Your task to perform on an android device: turn off wifi Image 0: 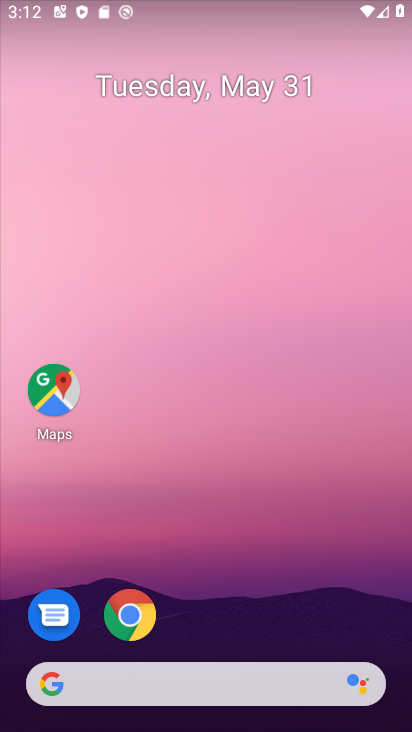
Step 0: drag from (255, 672) to (130, 180)
Your task to perform on an android device: turn off wifi Image 1: 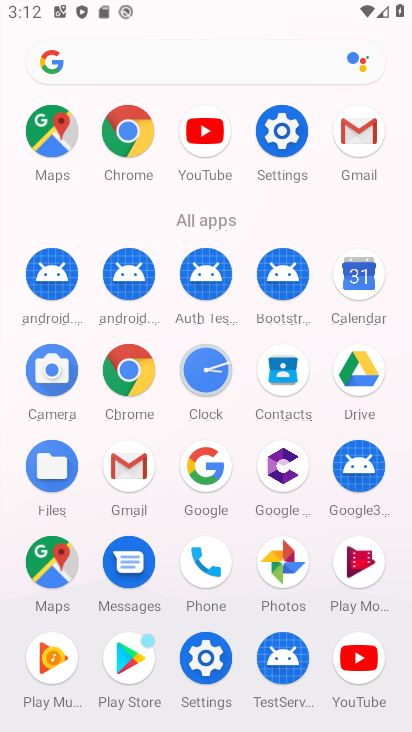
Step 1: click (282, 145)
Your task to perform on an android device: turn off wifi Image 2: 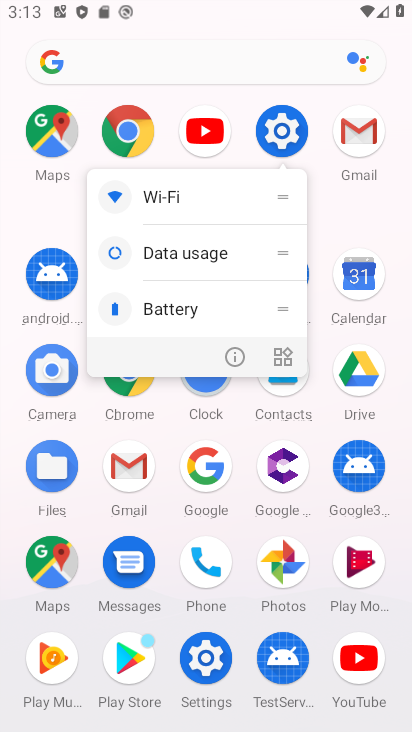
Step 2: click (169, 199)
Your task to perform on an android device: turn off wifi Image 3: 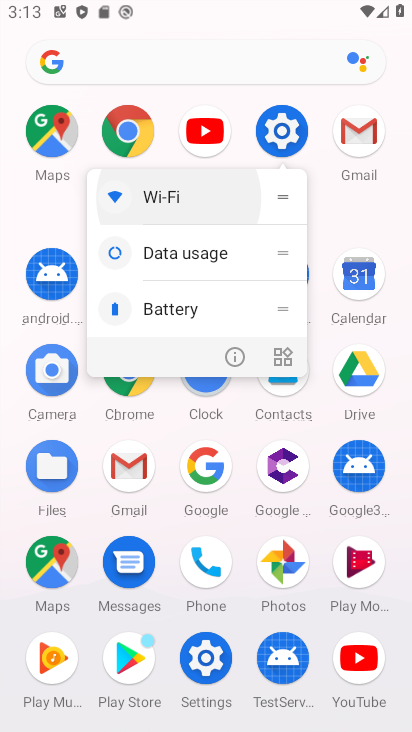
Step 3: click (169, 197)
Your task to perform on an android device: turn off wifi Image 4: 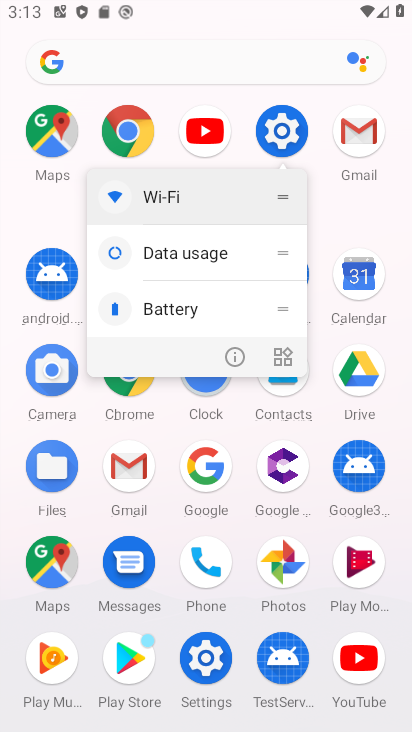
Step 4: click (171, 195)
Your task to perform on an android device: turn off wifi Image 5: 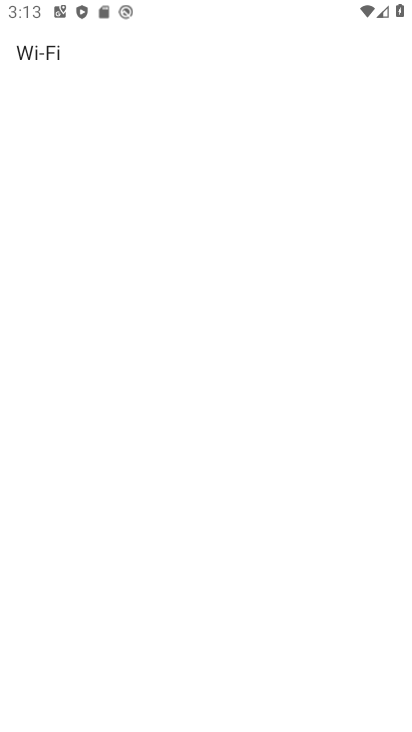
Step 5: click (171, 193)
Your task to perform on an android device: turn off wifi Image 6: 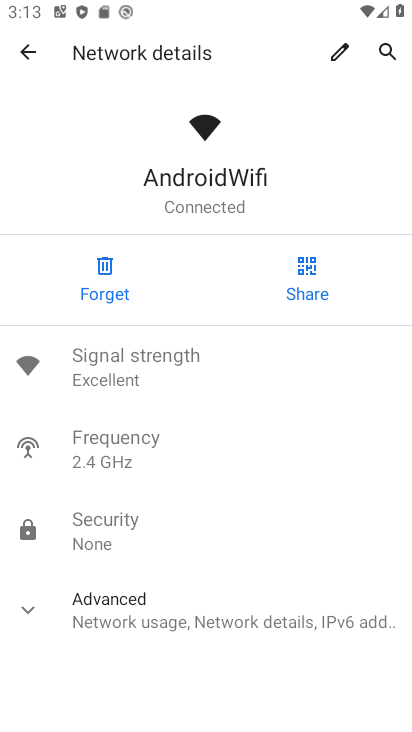
Step 6: click (22, 46)
Your task to perform on an android device: turn off wifi Image 7: 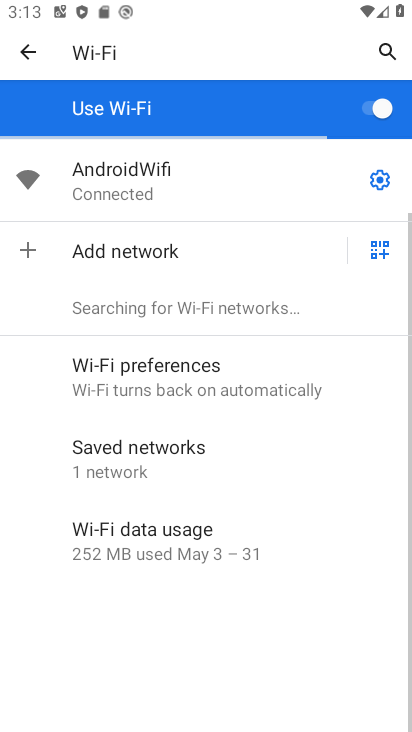
Step 7: task complete